Your task to perform on an android device: change text size in settings app Image 0: 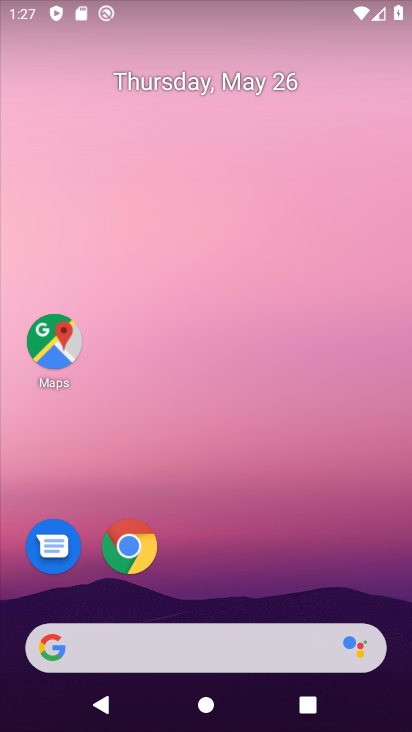
Step 0: drag from (222, 567) to (279, 77)
Your task to perform on an android device: change text size in settings app Image 1: 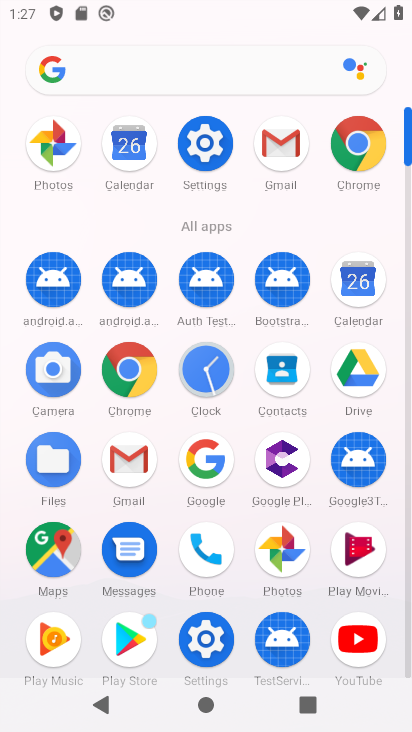
Step 1: click (193, 137)
Your task to perform on an android device: change text size in settings app Image 2: 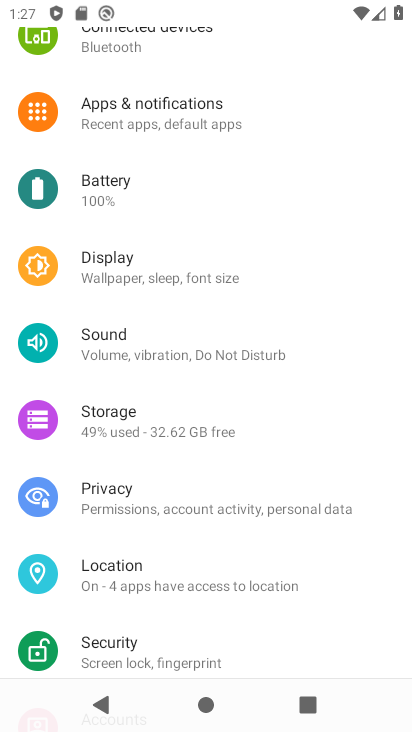
Step 2: click (145, 267)
Your task to perform on an android device: change text size in settings app Image 3: 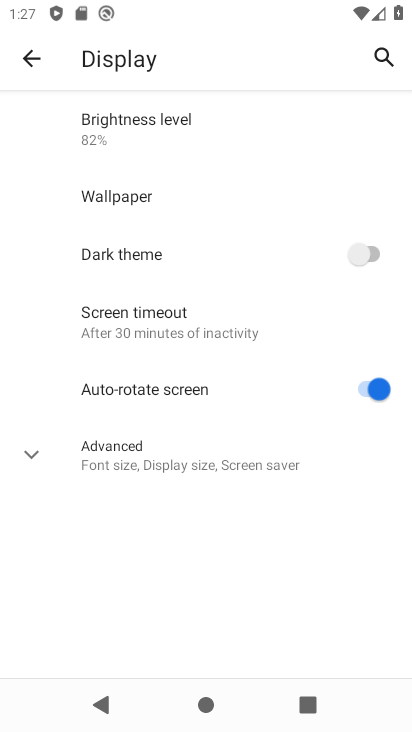
Step 3: click (171, 463)
Your task to perform on an android device: change text size in settings app Image 4: 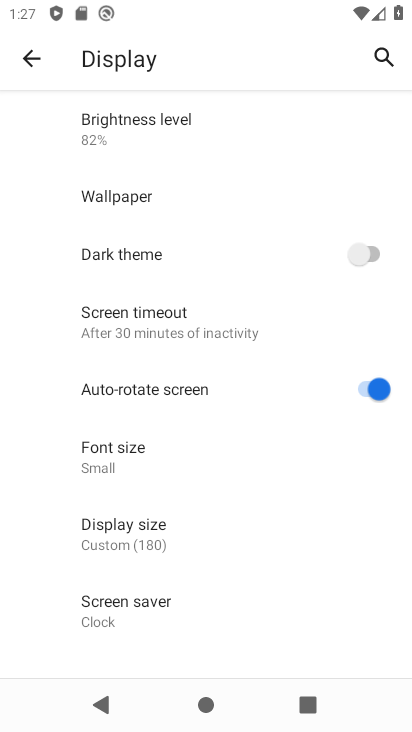
Step 4: click (161, 461)
Your task to perform on an android device: change text size in settings app Image 5: 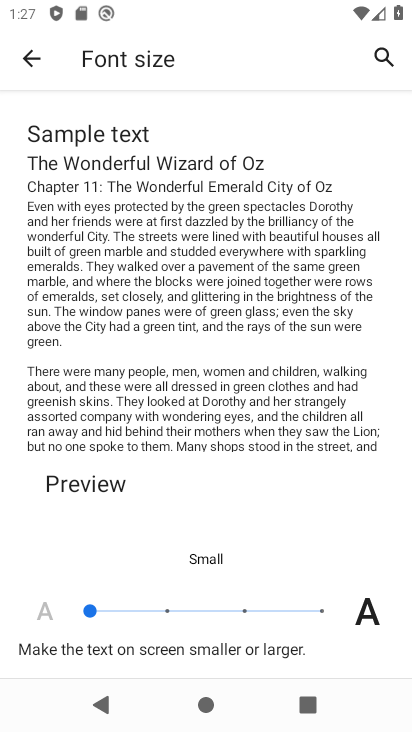
Step 5: task complete